Your task to perform on an android device: open sync settings in chrome Image 0: 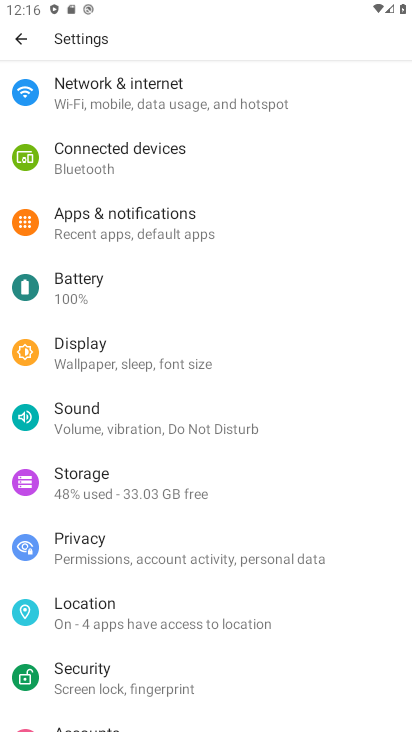
Step 0: press home button
Your task to perform on an android device: open sync settings in chrome Image 1: 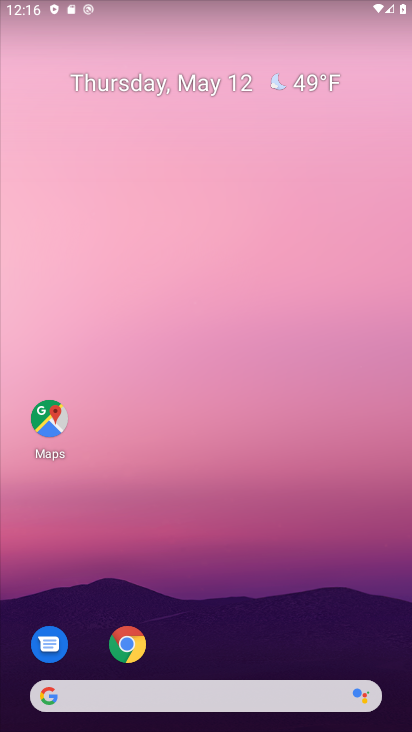
Step 1: click (129, 650)
Your task to perform on an android device: open sync settings in chrome Image 2: 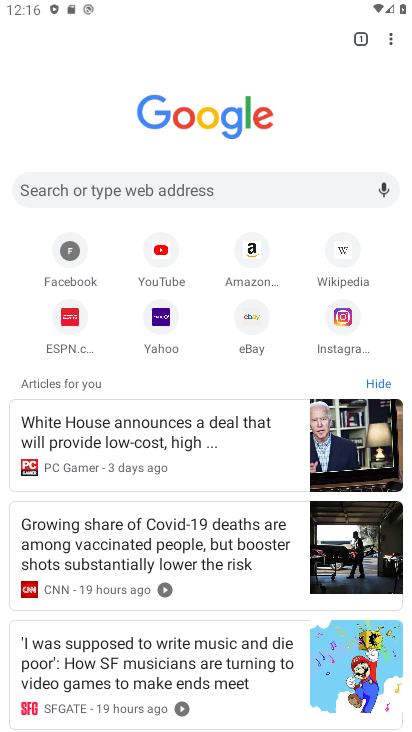
Step 2: click (386, 34)
Your task to perform on an android device: open sync settings in chrome Image 3: 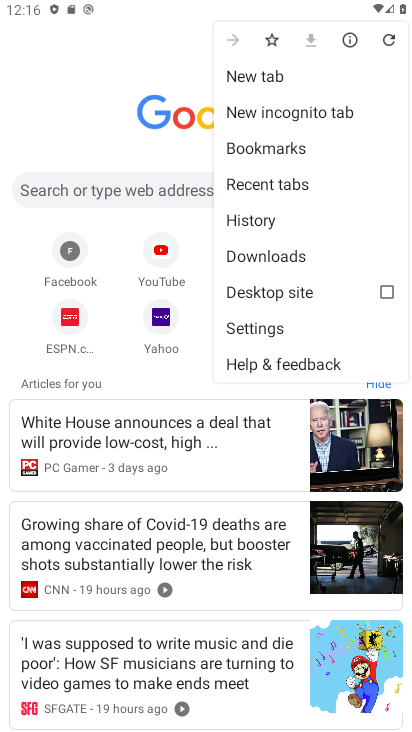
Step 3: click (276, 325)
Your task to perform on an android device: open sync settings in chrome Image 4: 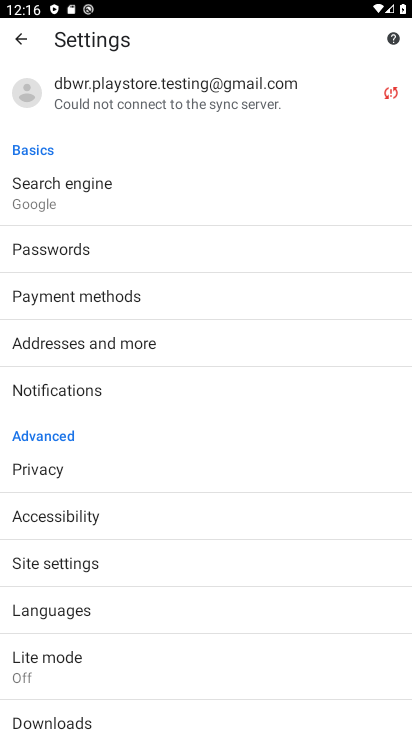
Step 4: click (115, 86)
Your task to perform on an android device: open sync settings in chrome Image 5: 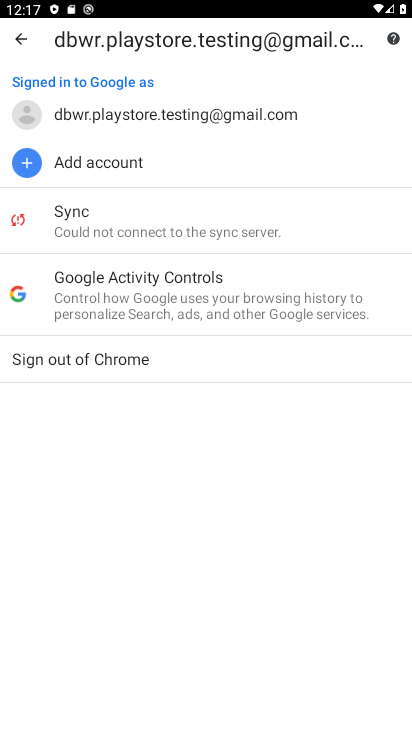
Step 5: task complete